Your task to perform on an android device: Search for Mexican restaurants on Maps Image 0: 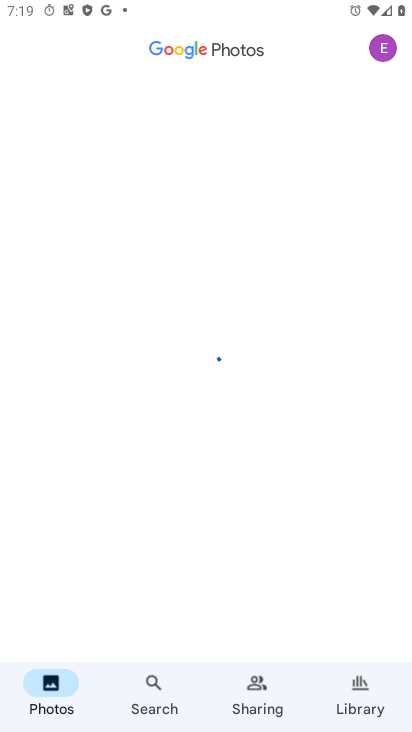
Step 0: press home button
Your task to perform on an android device: Search for Mexican restaurants on Maps Image 1: 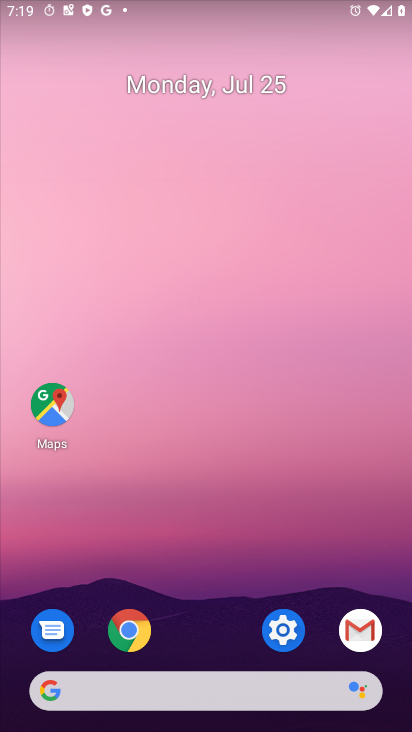
Step 1: click (67, 405)
Your task to perform on an android device: Search for Mexican restaurants on Maps Image 2: 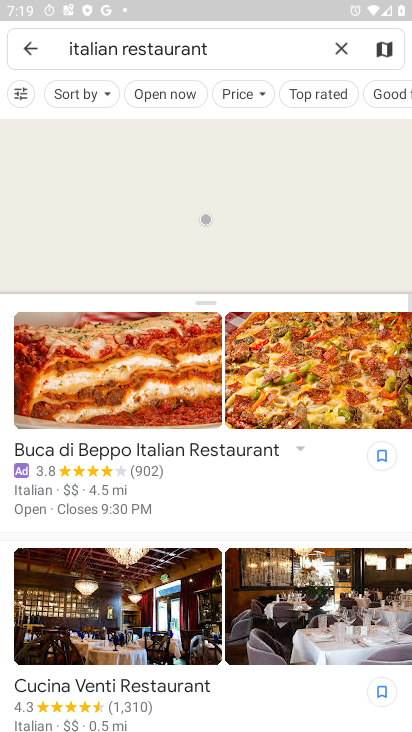
Step 2: click (342, 48)
Your task to perform on an android device: Search for Mexican restaurants on Maps Image 3: 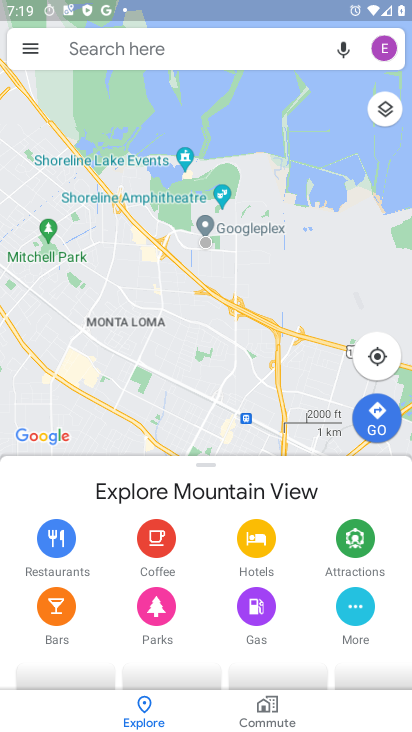
Step 3: click (242, 70)
Your task to perform on an android device: Search for Mexican restaurants on Maps Image 4: 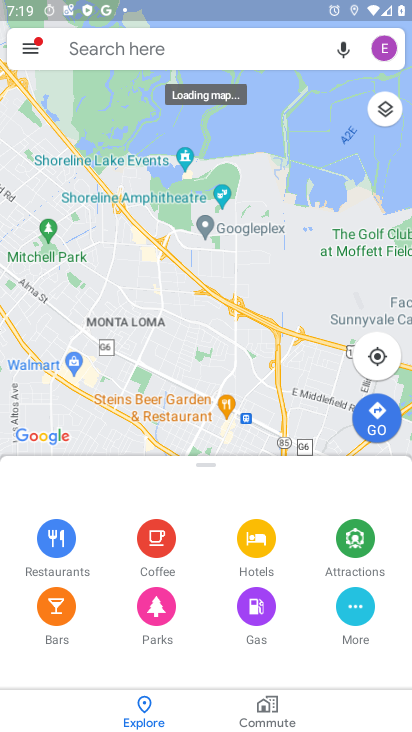
Step 4: click (190, 54)
Your task to perform on an android device: Search for Mexican restaurants on Maps Image 5: 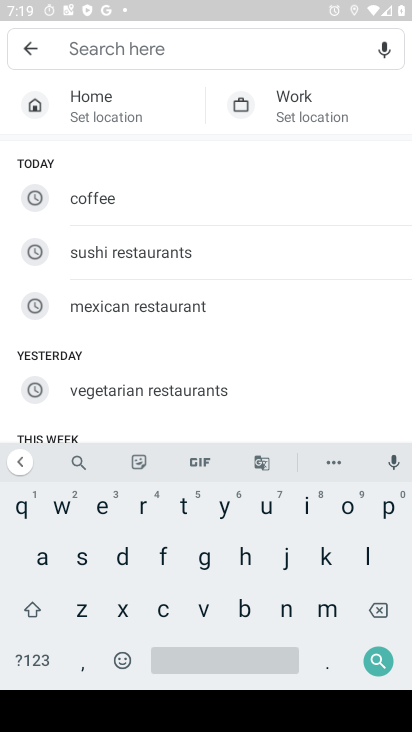
Step 5: click (133, 310)
Your task to perform on an android device: Search for Mexican restaurants on Maps Image 6: 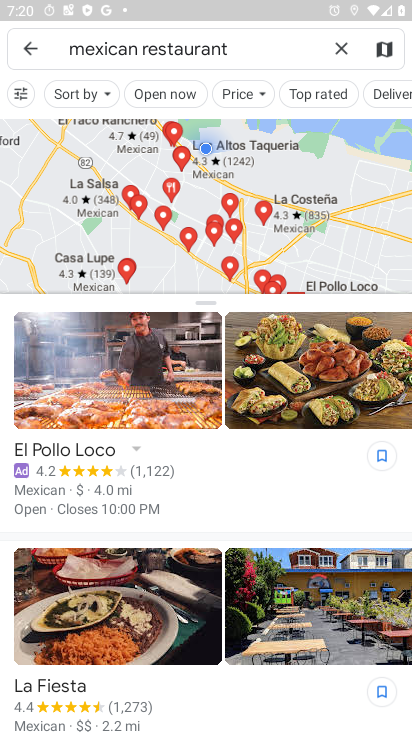
Step 6: task complete